Your task to perform on an android device: set the timer Image 0: 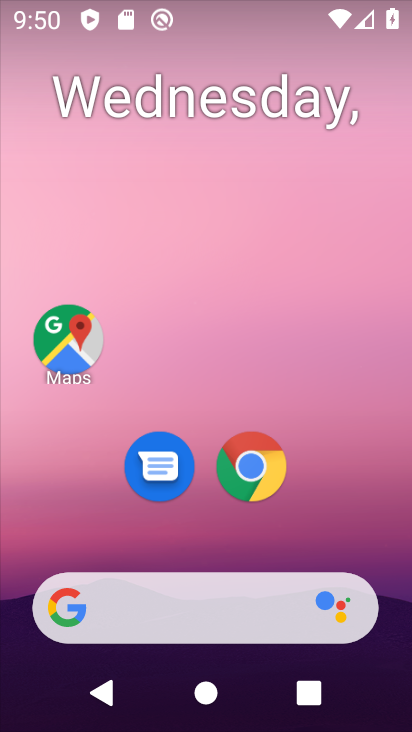
Step 0: drag from (302, 513) to (173, 7)
Your task to perform on an android device: set the timer Image 1: 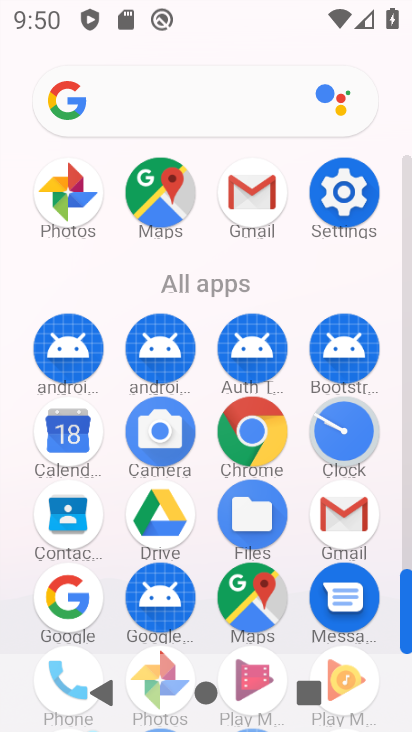
Step 1: click (356, 423)
Your task to perform on an android device: set the timer Image 2: 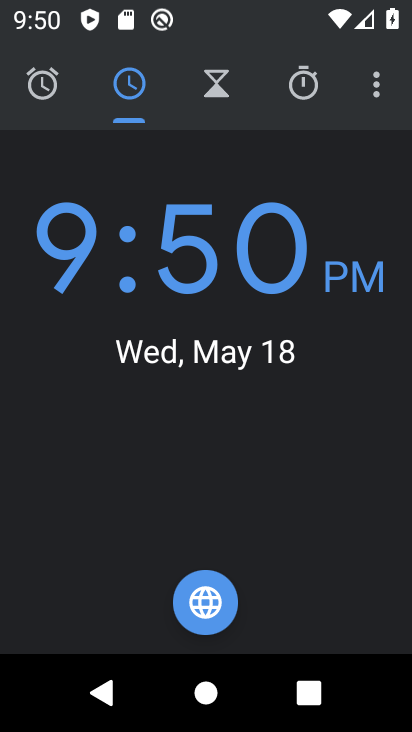
Step 2: click (218, 95)
Your task to perform on an android device: set the timer Image 3: 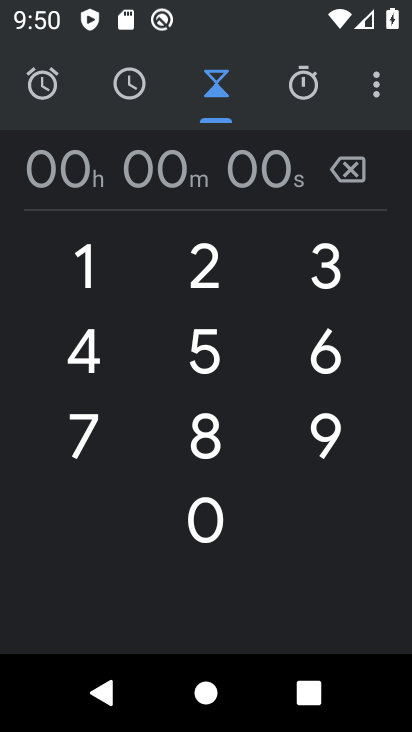
Step 3: click (198, 267)
Your task to perform on an android device: set the timer Image 4: 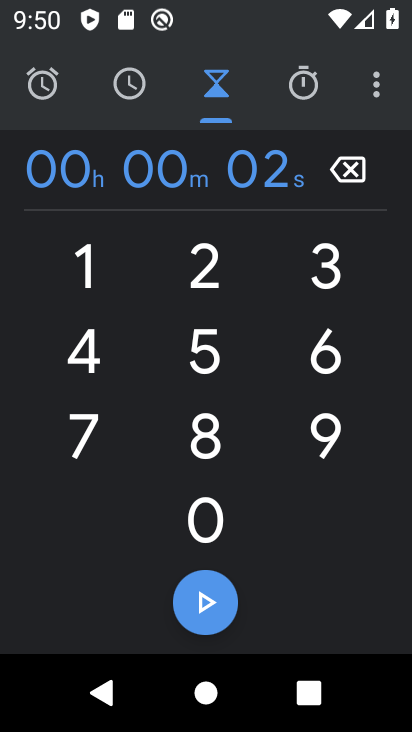
Step 4: click (198, 512)
Your task to perform on an android device: set the timer Image 5: 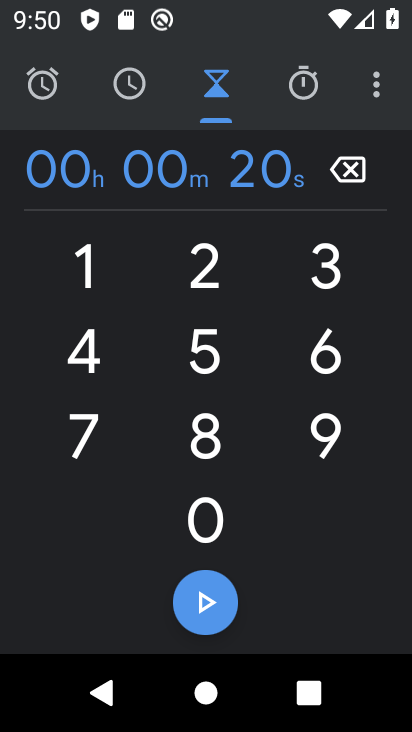
Step 5: click (203, 297)
Your task to perform on an android device: set the timer Image 6: 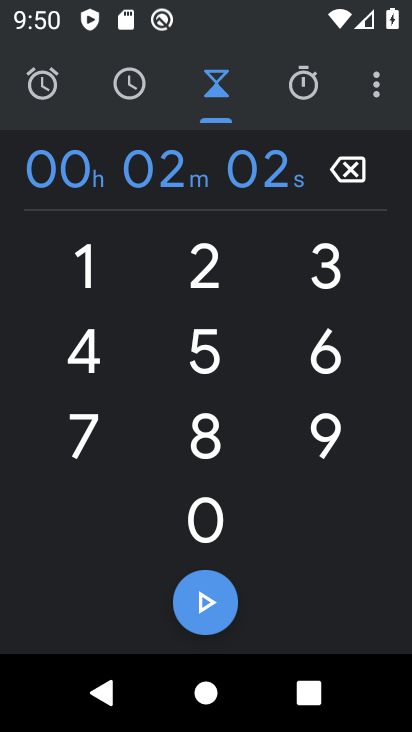
Step 6: click (215, 523)
Your task to perform on an android device: set the timer Image 7: 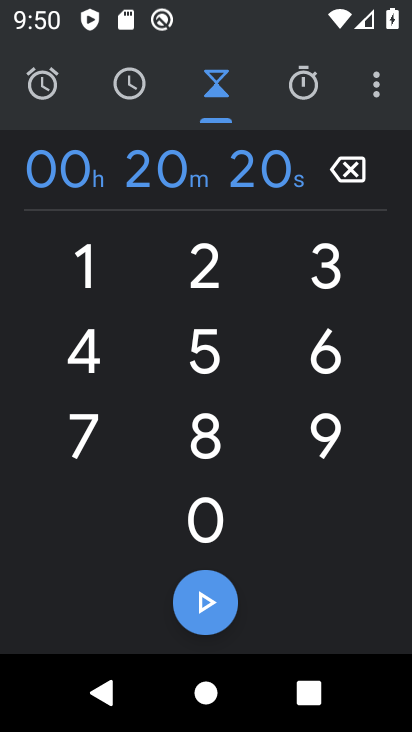
Step 7: click (207, 607)
Your task to perform on an android device: set the timer Image 8: 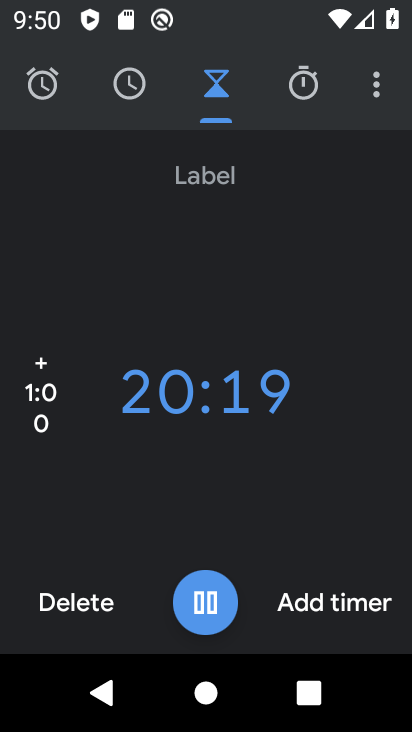
Step 8: click (318, 609)
Your task to perform on an android device: set the timer Image 9: 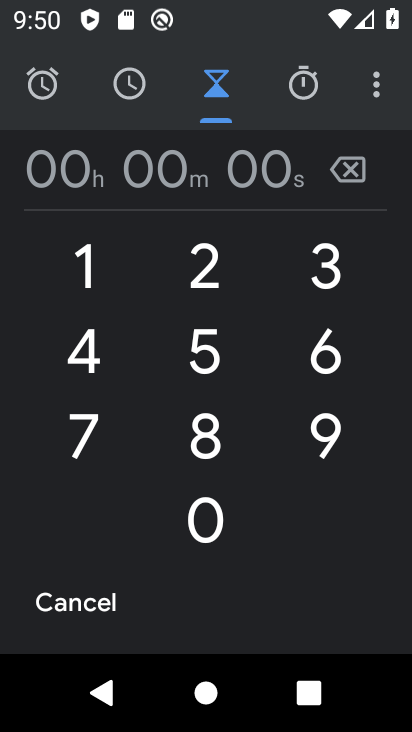
Step 9: task complete